Your task to perform on an android device: Go to location settings Image 0: 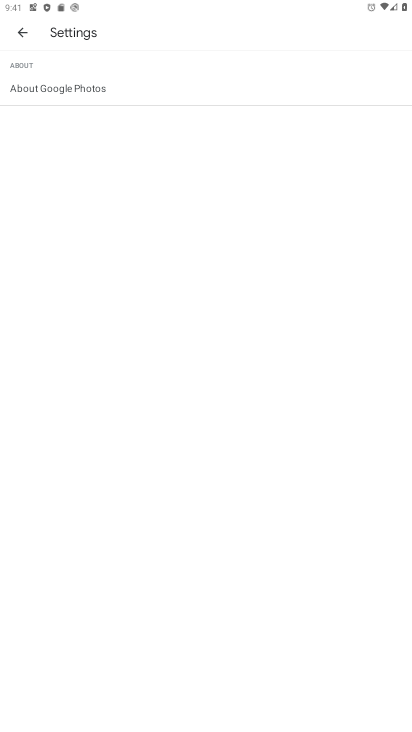
Step 0: press home button
Your task to perform on an android device: Go to location settings Image 1: 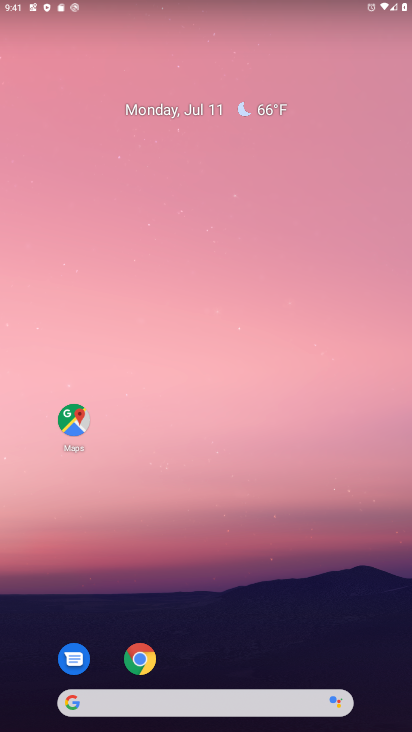
Step 1: drag from (355, 612) to (340, 126)
Your task to perform on an android device: Go to location settings Image 2: 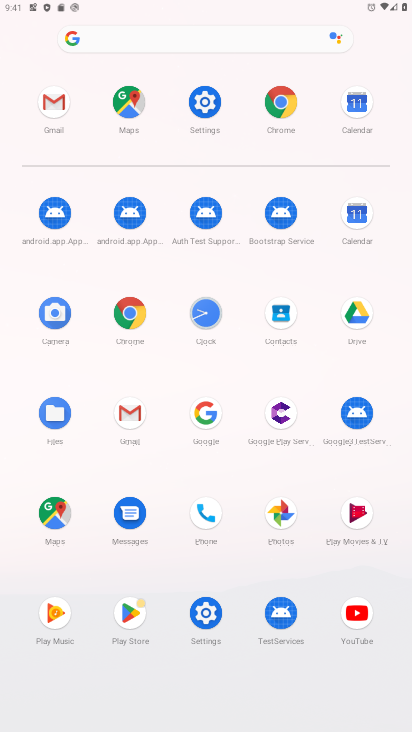
Step 2: click (209, 111)
Your task to perform on an android device: Go to location settings Image 3: 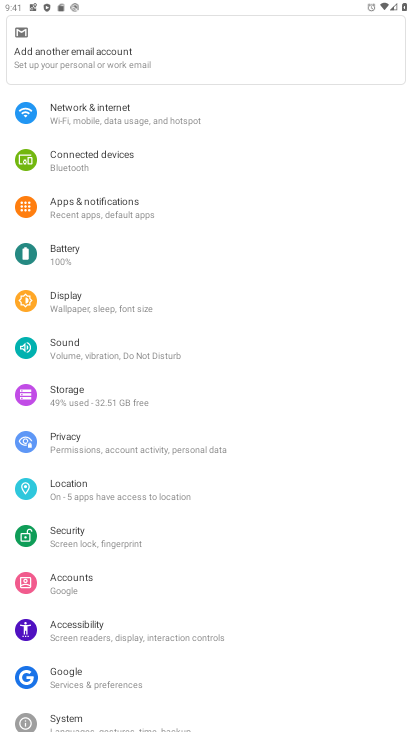
Step 3: drag from (322, 393) to (311, 274)
Your task to perform on an android device: Go to location settings Image 4: 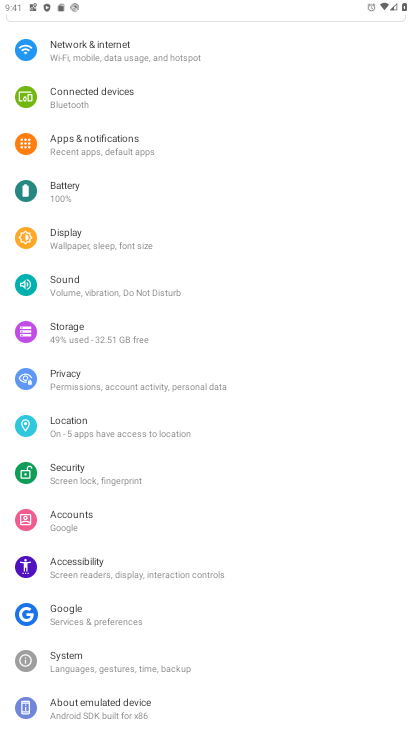
Step 4: drag from (319, 429) to (310, 283)
Your task to perform on an android device: Go to location settings Image 5: 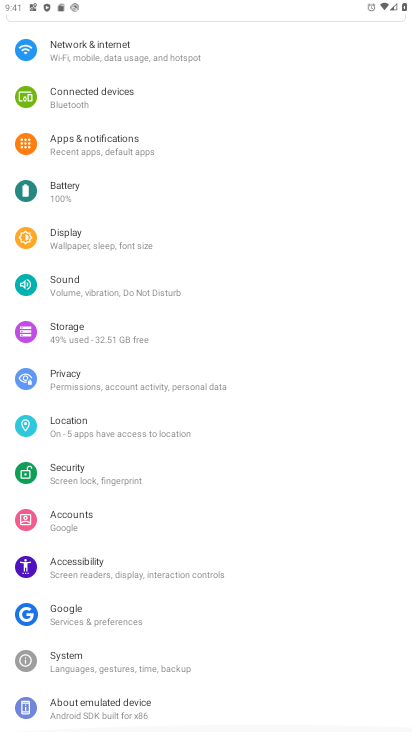
Step 5: drag from (307, 225) to (310, 314)
Your task to perform on an android device: Go to location settings Image 6: 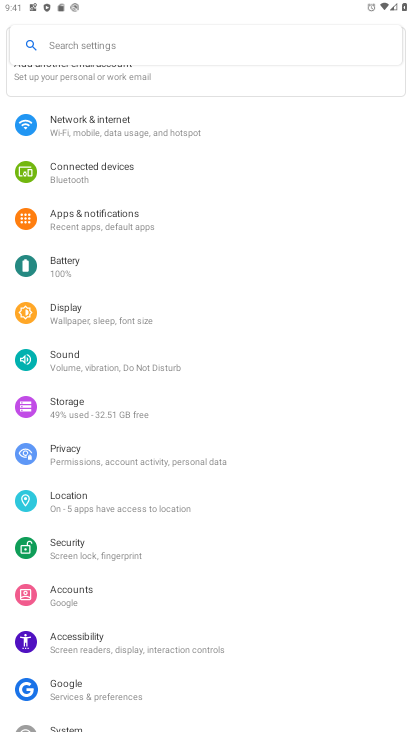
Step 6: drag from (301, 219) to (318, 390)
Your task to perform on an android device: Go to location settings Image 7: 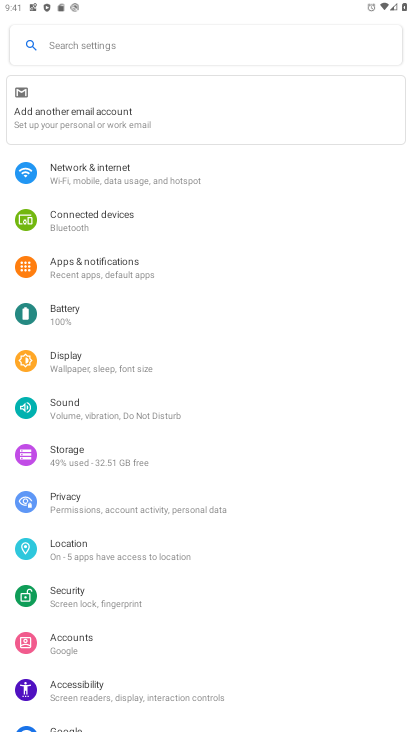
Step 7: click (167, 553)
Your task to perform on an android device: Go to location settings Image 8: 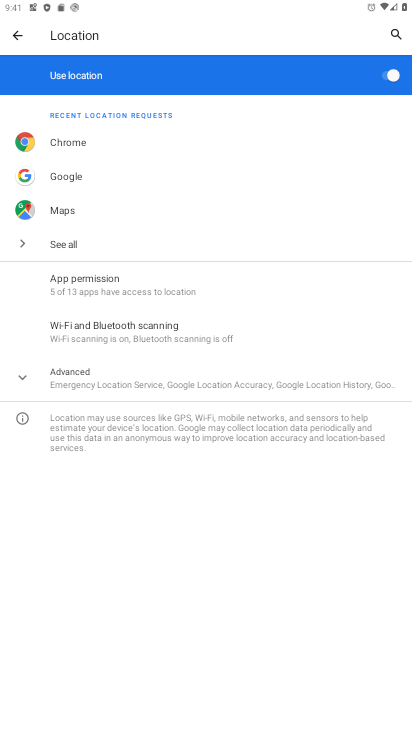
Step 8: task complete